Your task to perform on an android device: visit the assistant section in the google photos Image 0: 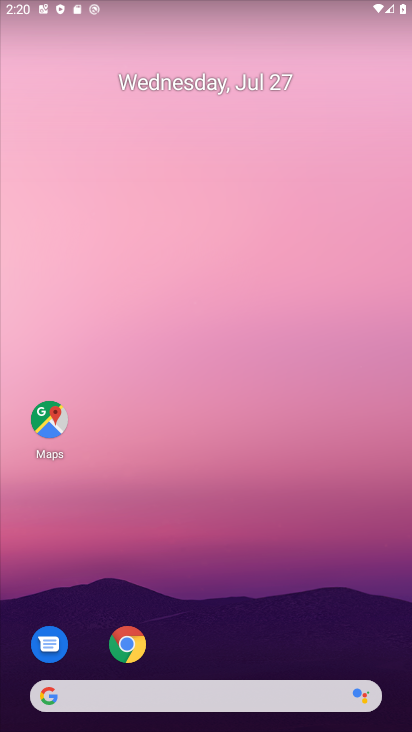
Step 0: drag from (243, 649) to (202, 189)
Your task to perform on an android device: visit the assistant section in the google photos Image 1: 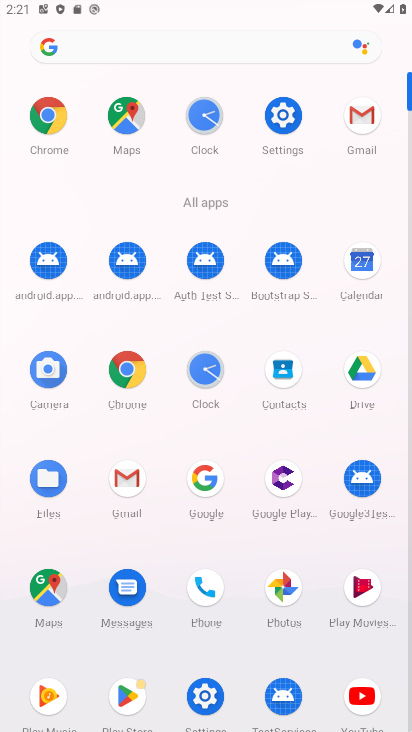
Step 1: click (285, 593)
Your task to perform on an android device: visit the assistant section in the google photos Image 2: 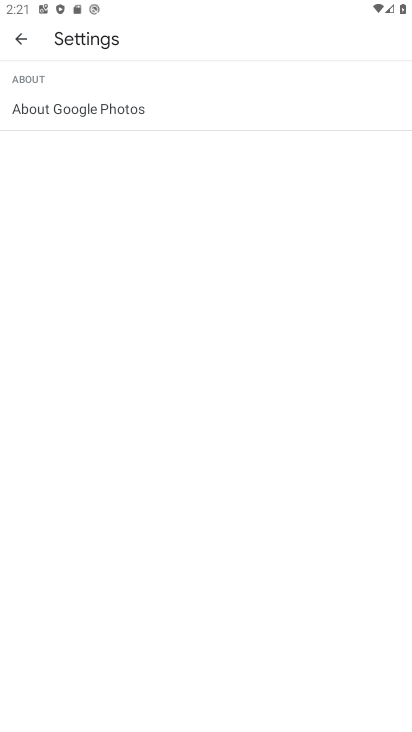
Step 2: click (19, 40)
Your task to perform on an android device: visit the assistant section in the google photos Image 3: 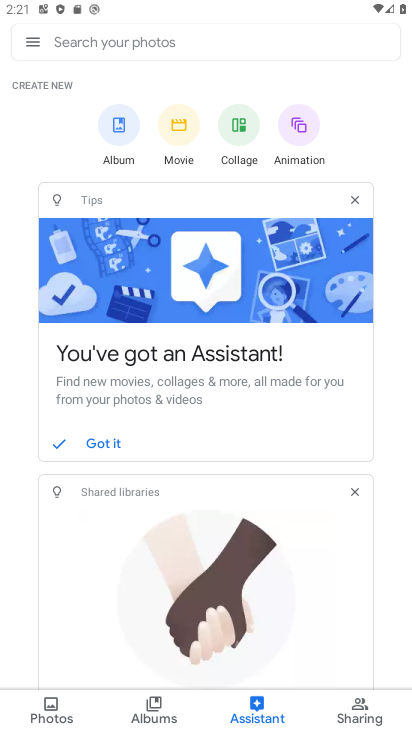
Step 3: task complete